Your task to perform on an android device: Open Youtube and go to the subscriptions tab Image 0: 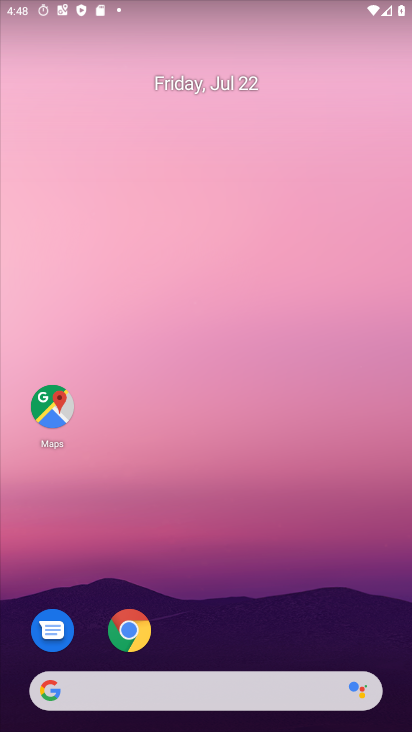
Step 0: drag from (234, 657) to (156, 0)
Your task to perform on an android device: Open Youtube and go to the subscriptions tab Image 1: 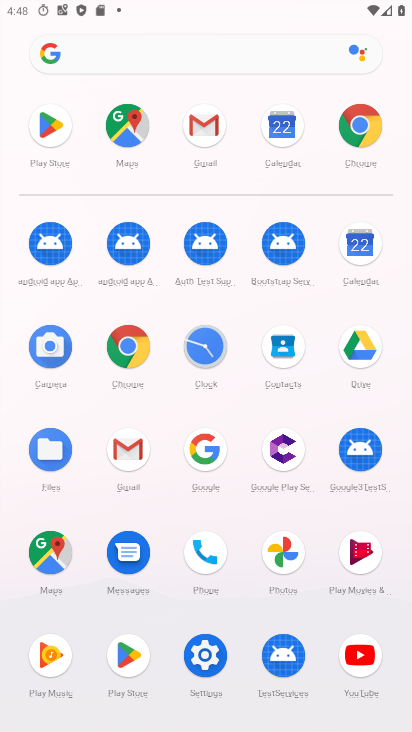
Step 1: click (357, 643)
Your task to perform on an android device: Open Youtube and go to the subscriptions tab Image 2: 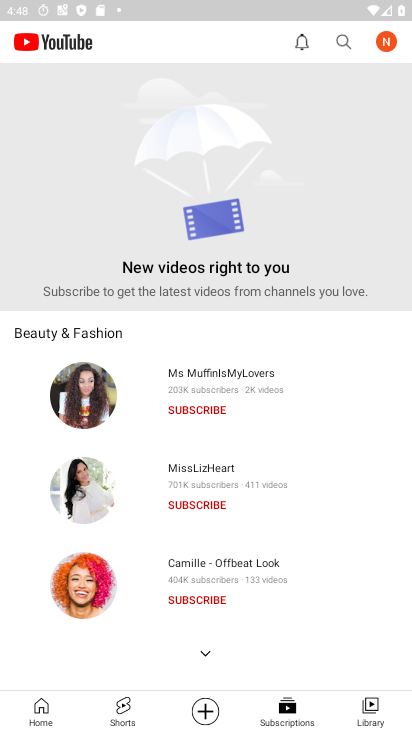
Step 2: click (280, 714)
Your task to perform on an android device: Open Youtube and go to the subscriptions tab Image 3: 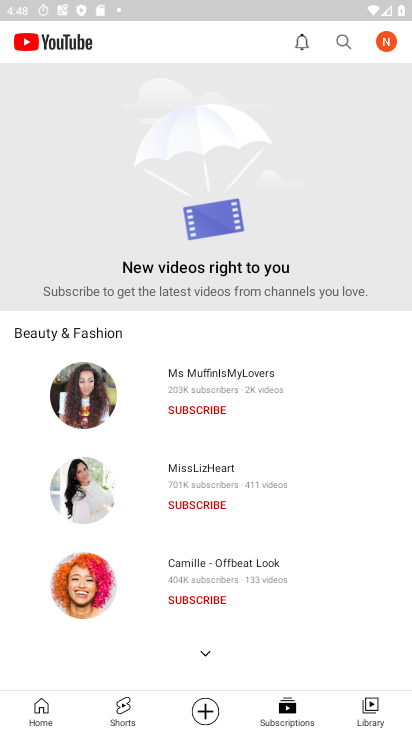
Step 3: task complete